Your task to perform on an android device: turn off notifications in google photos Image 0: 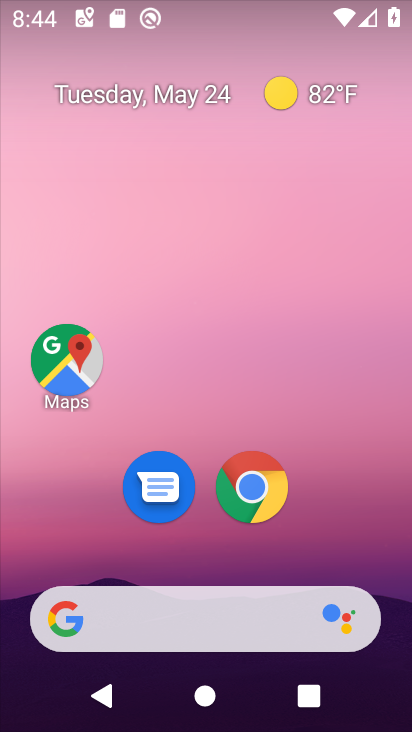
Step 0: drag from (333, 523) to (264, 112)
Your task to perform on an android device: turn off notifications in google photos Image 1: 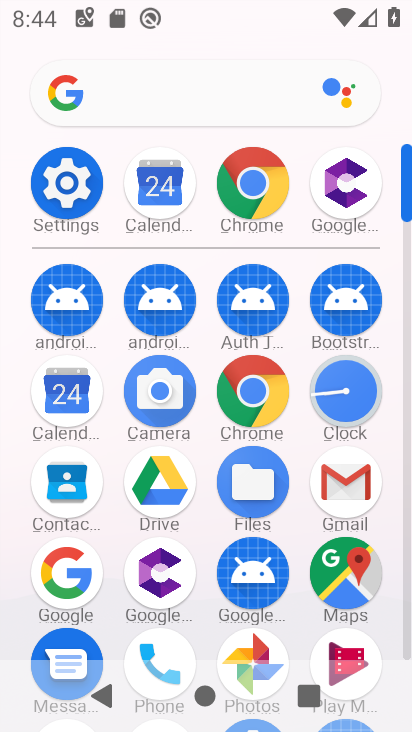
Step 1: click (240, 640)
Your task to perform on an android device: turn off notifications in google photos Image 2: 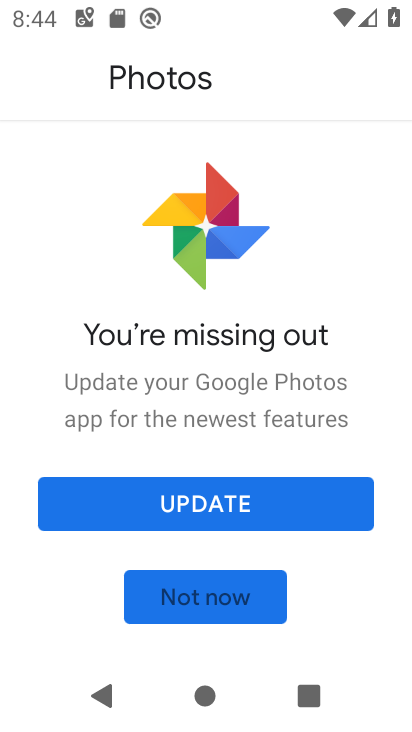
Step 2: click (241, 511)
Your task to perform on an android device: turn off notifications in google photos Image 3: 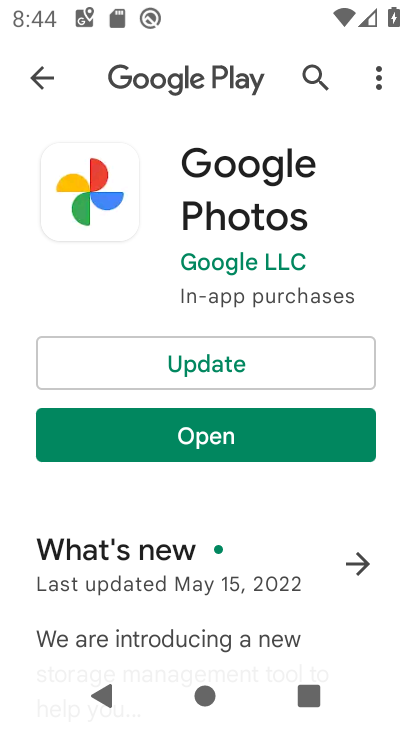
Step 3: click (226, 358)
Your task to perform on an android device: turn off notifications in google photos Image 4: 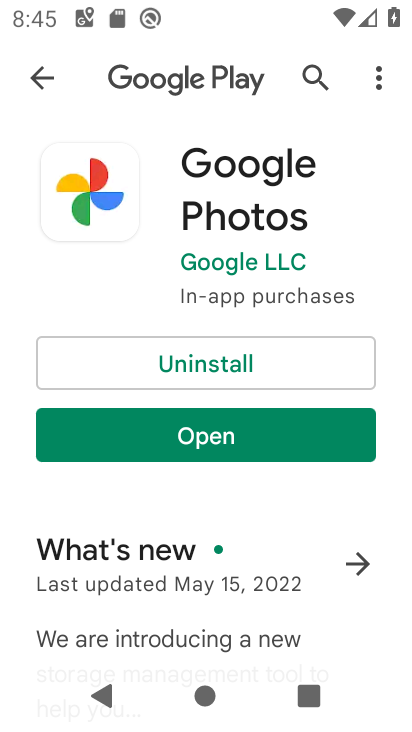
Step 4: click (242, 442)
Your task to perform on an android device: turn off notifications in google photos Image 5: 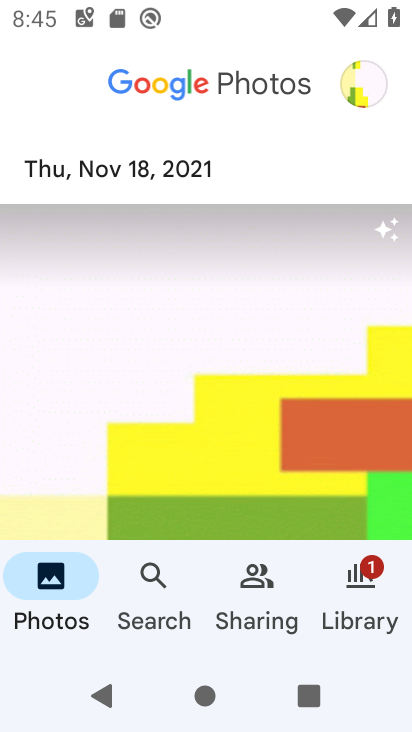
Step 5: click (369, 92)
Your task to perform on an android device: turn off notifications in google photos Image 6: 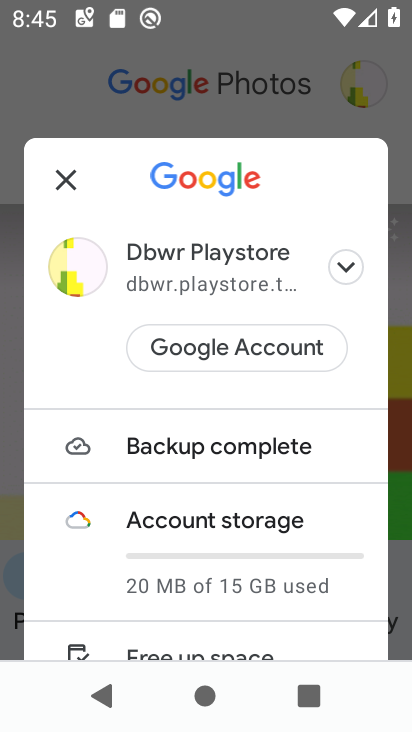
Step 6: drag from (287, 624) to (293, 270)
Your task to perform on an android device: turn off notifications in google photos Image 7: 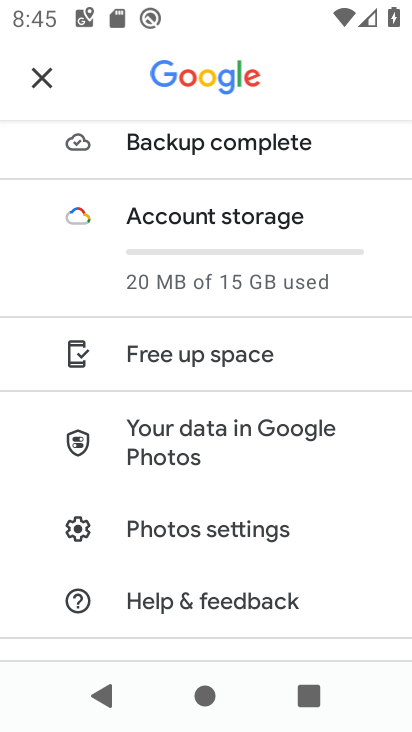
Step 7: click (228, 529)
Your task to perform on an android device: turn off notifications in google photos Image 8: 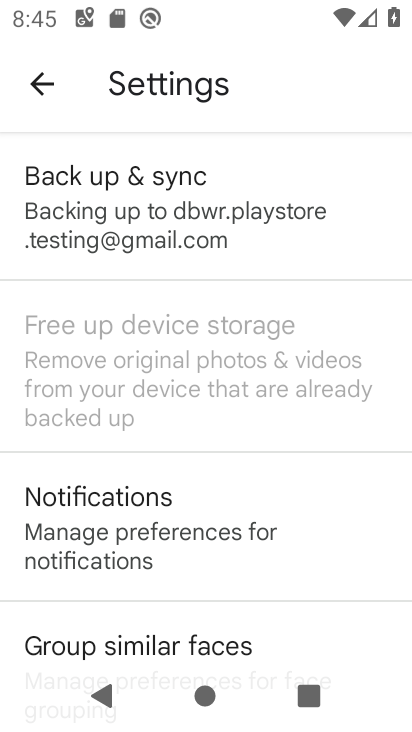
Step 8: click (154, 539)
Your task to perform on an android device: turn off notifications in google photos Image 9: 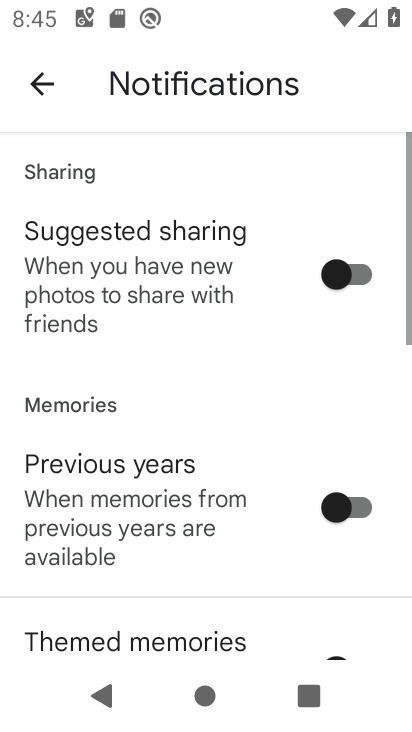
Step 9: drag from (206, 598) to (244, 236)
Your task to perform on an android device: turn off notifications in google photos Image 10: 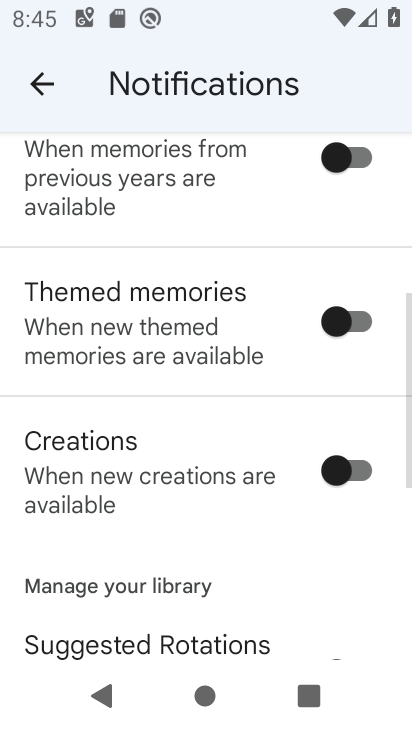
Step 10: drag from (202, 564) to (214, 259)
Your task to perform on an android device: turn off notifications in google photos Image 11: 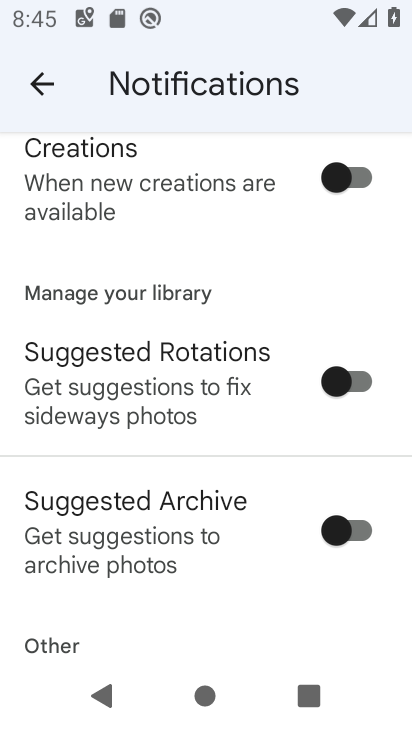
Step 11: drag from (215, 319) to (225, 255)
Your task to perform on an android device: turn off notifications in google photos Image 12: 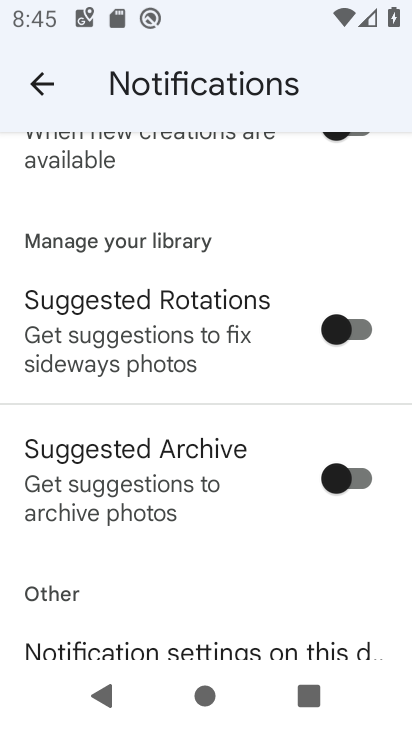
Step 12: drag from (210, 567) to (224, 201)
Your task to perform on an android device: turn off notifications in google photos Image 13: 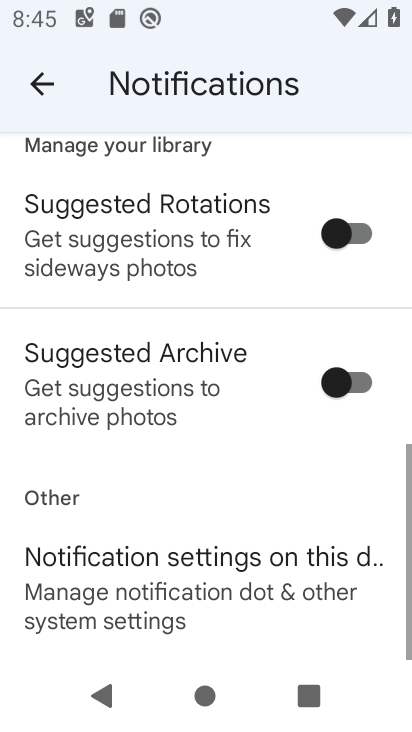
Step 13: click (213, 557)
Your task to perform on an android device: turn off notifications in google photos Image 14: 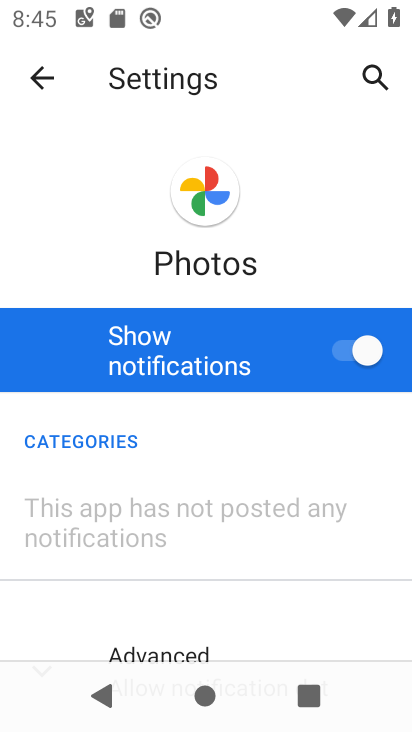
Step 14: click (335, 360)
Your task to perform on an android device: turn off notifications in google photos Image 15: 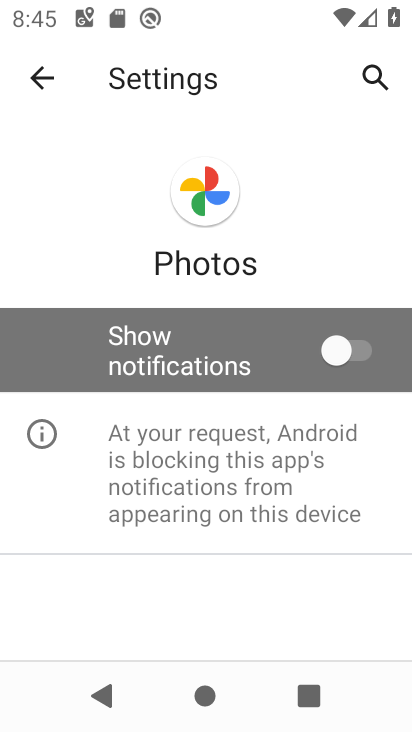
Step 15: task complete